Your task to perform on an android device: check battery use Image 0: 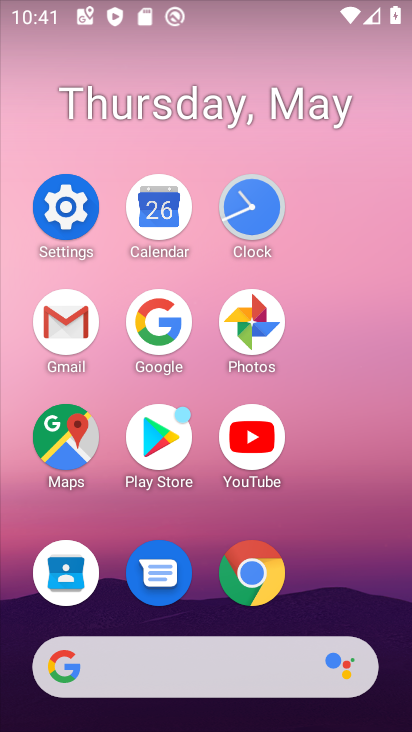
Step 0: click (72, 213)
Your task to perform on an android device: check battery use Image 1: 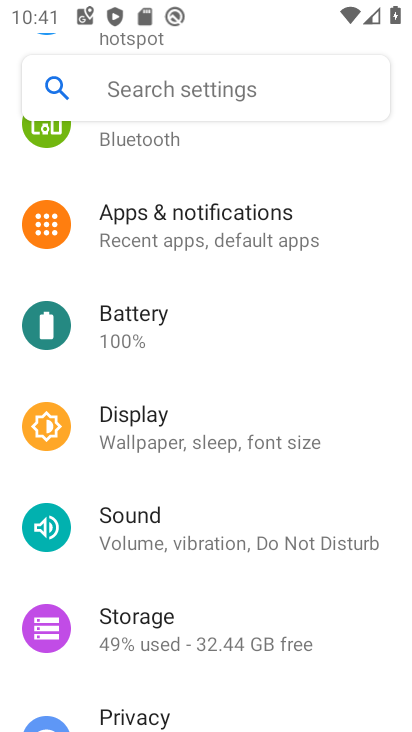
Step 1: drag from (216, 237) to (223, 596)
Your task to perform on an android device: check battery use Image 2: 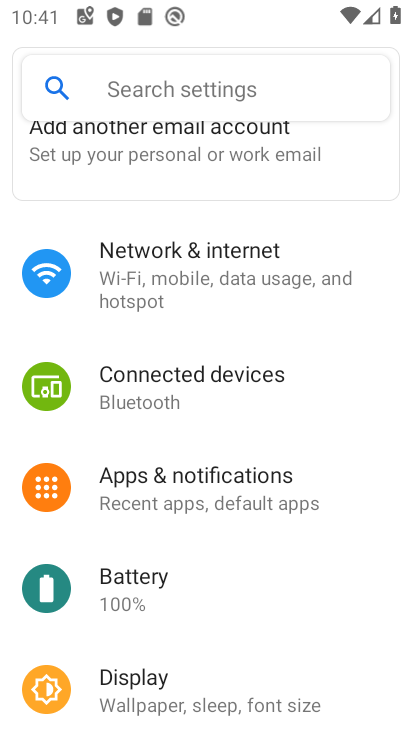
Step 2: click (208, 585)
Your task to perform on an android device: check battery use Image 3: 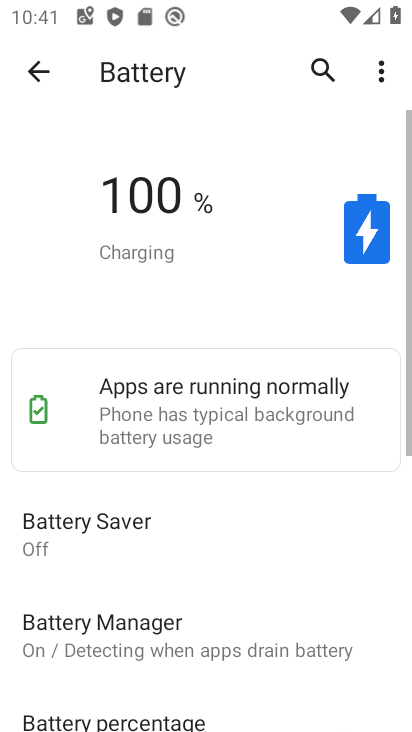
Step 3: click (393, 77)
Your task to perform on an android device: check battery use Image 4: 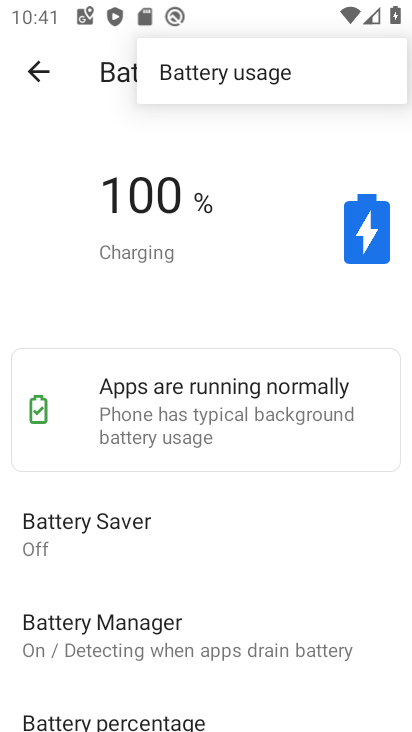
Step 4: click (268, 81)
Your task to perform on an android device: check battery use Image 5: 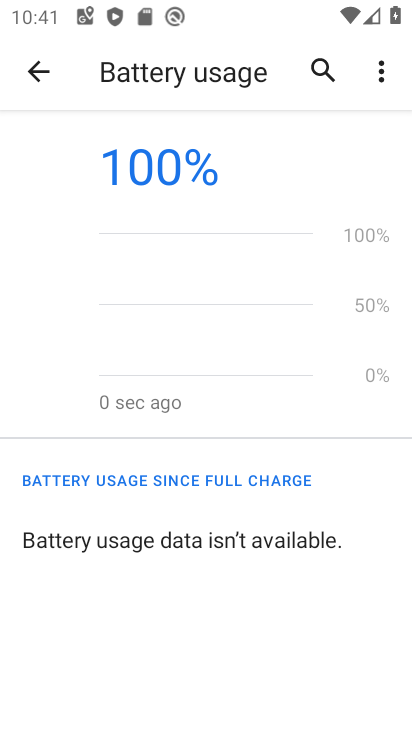
Step 5: task complete